Your task to perform on an android device: turn vacation reply on in the gmail app Image 0: 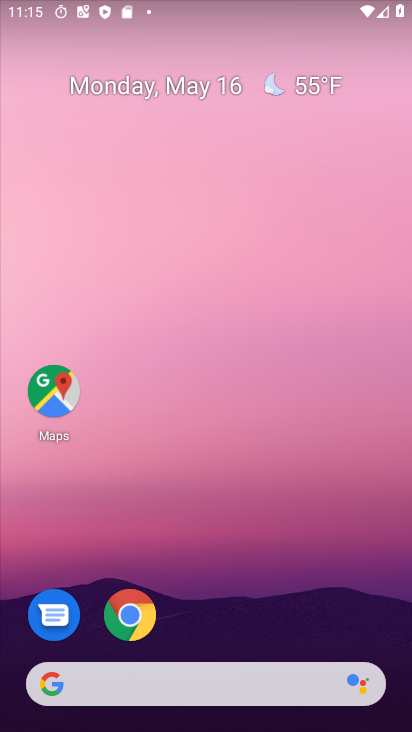
Step 0: drag from (214, 620) to (241, 87)
Your task to perform on an android device: turn vacation reply on in the gmail app Image 1: 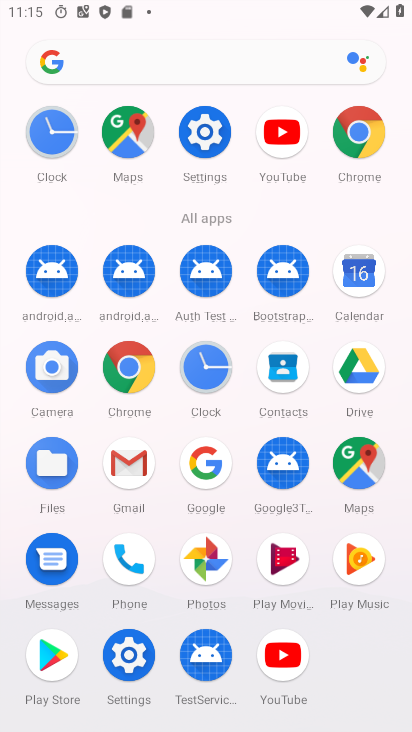
Step 1: click (123, 459)
Your task to perform on an android device: turn vacation reply on in the gmail app Image 2: 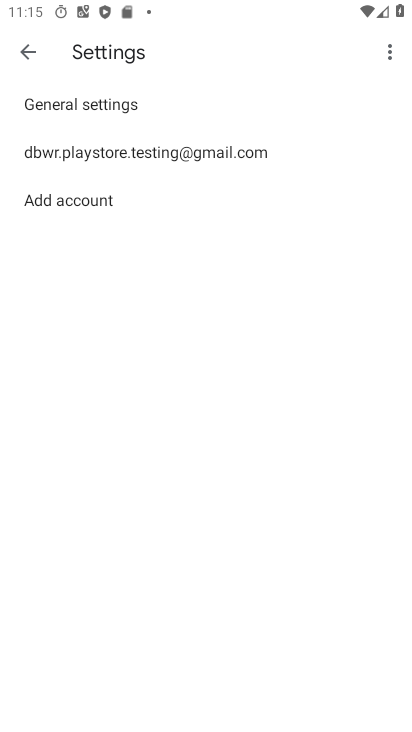
Step 2: click (165, 151)
Your task to perform on an android device: turn vacation reply on in the gmail app Image 3: 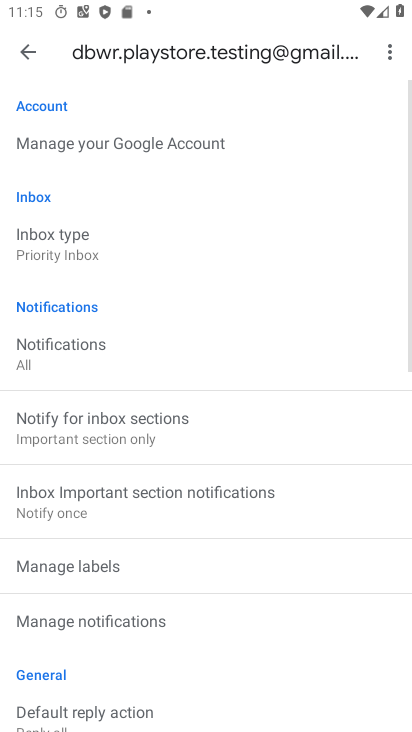
Step 3: drag from (241, 614) to (271, 245)
Your task to perform on an android device: turn vacation reply on in the gmail app Image 4: 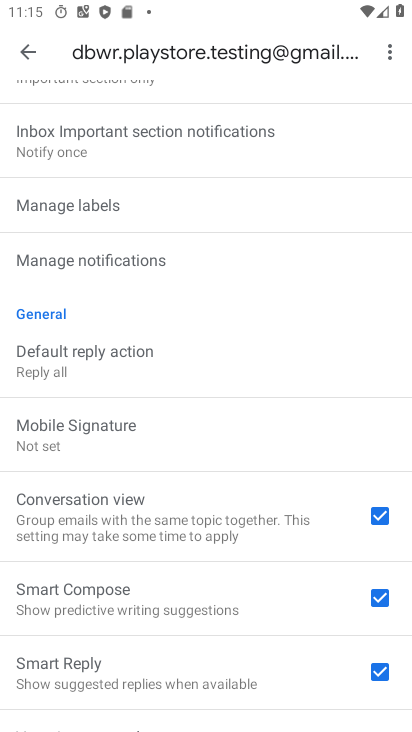
Step 4: drag from (220, 658) to (270, 120)
Your task to perform on an android device: turn vacation reply on in the gmail app Image 5: 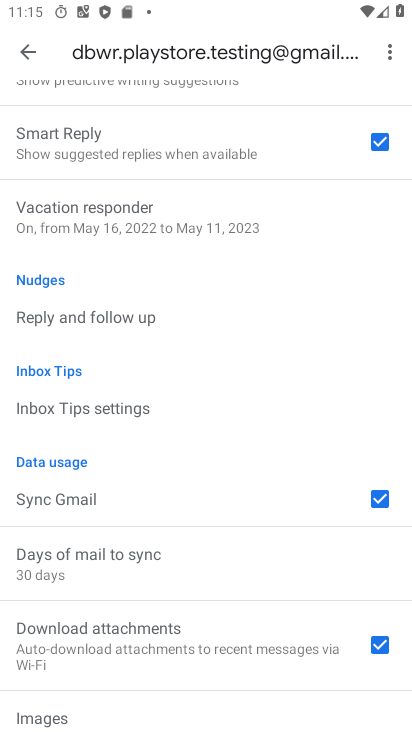
Step 5: click (91, 211)
Your task to perform on an android device: turn vacation reply on in the gmail app Image 6: 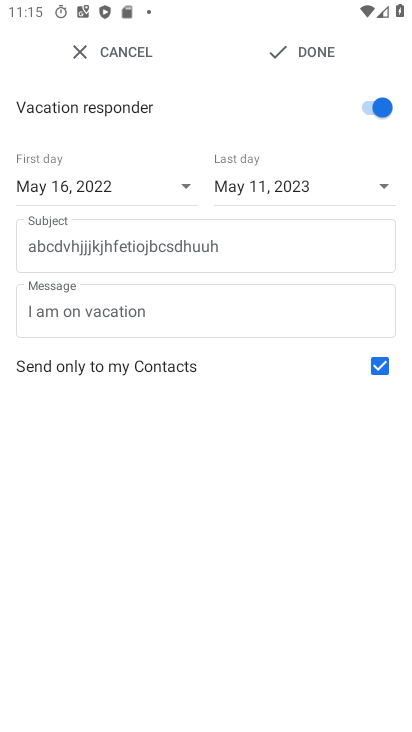
Step 6: click (304, 52)
Your task to perform on an android device: turn vacation reply on in the gmail app Image 7: 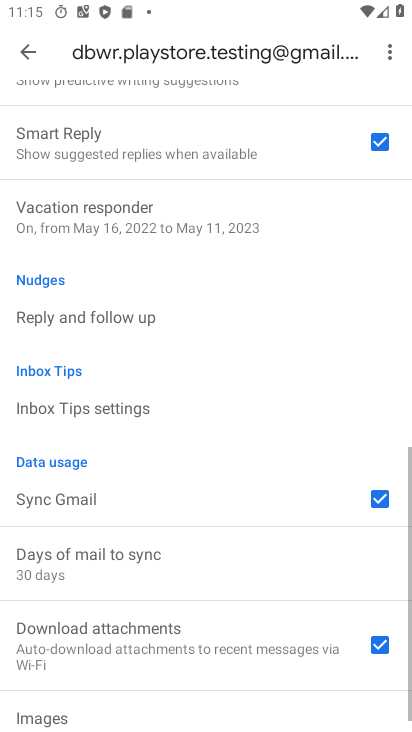
Step 7: task complete